Your task to perform on an android device: Go to ESPN.com Image 0: 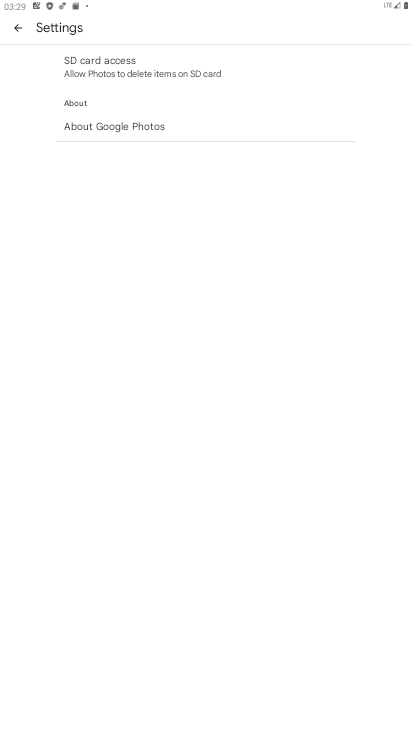
Step 0: press home button
Your task to perform on an android device: Go to ESPN.com Image 1: 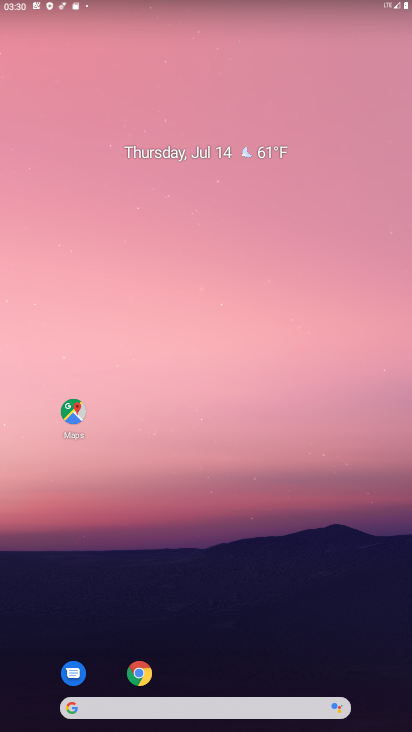
Step 1: click (153, 677)
Your task to perform on an android device: Go to ESPN.com Image 2: 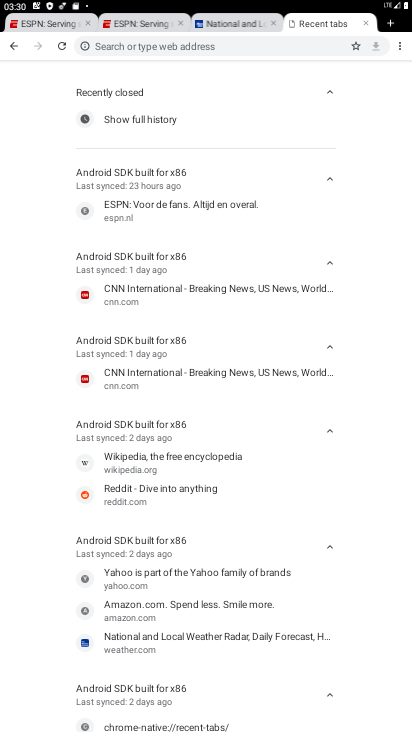
Step 2: click (106, 27)
Your task to perform on an android device: Go to ESPN.com Image 3: 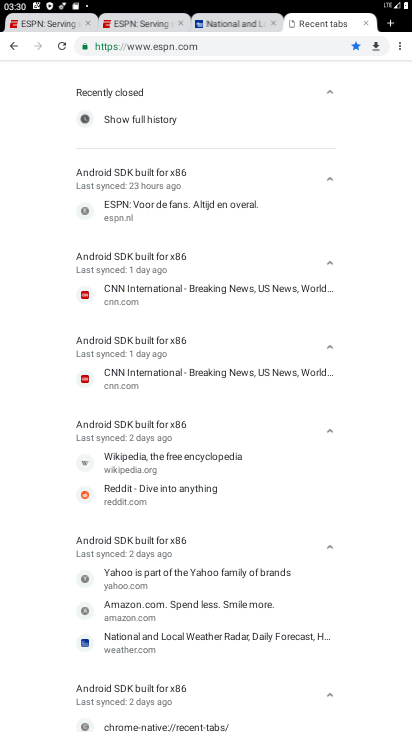
Step 3: task complete